Your task to perform on an android device: Open internet settings Image 0: 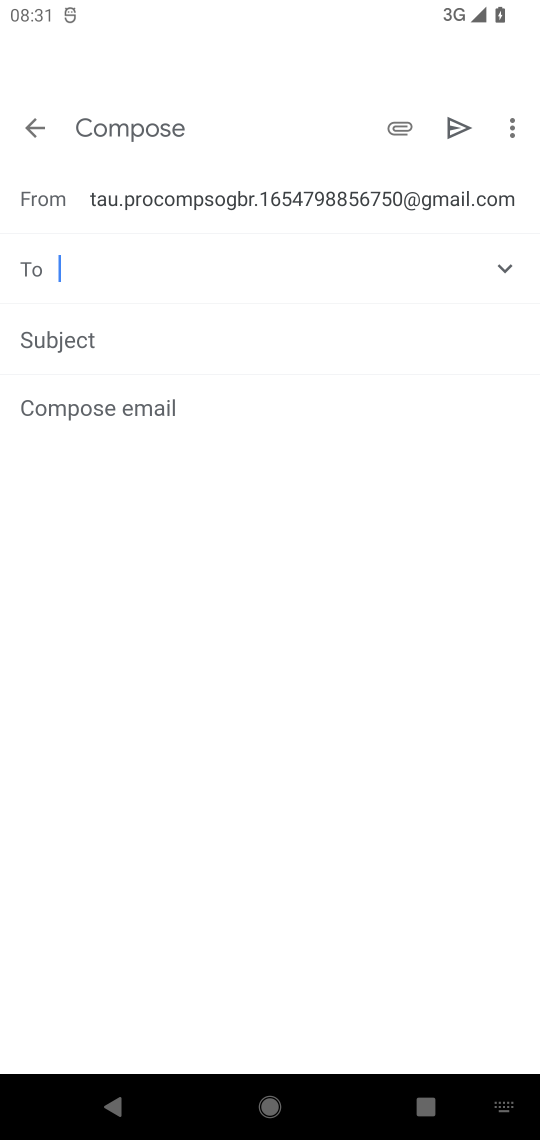
Step 0: press home button
Your task to perform on an android device: Open internet settings Image 1: 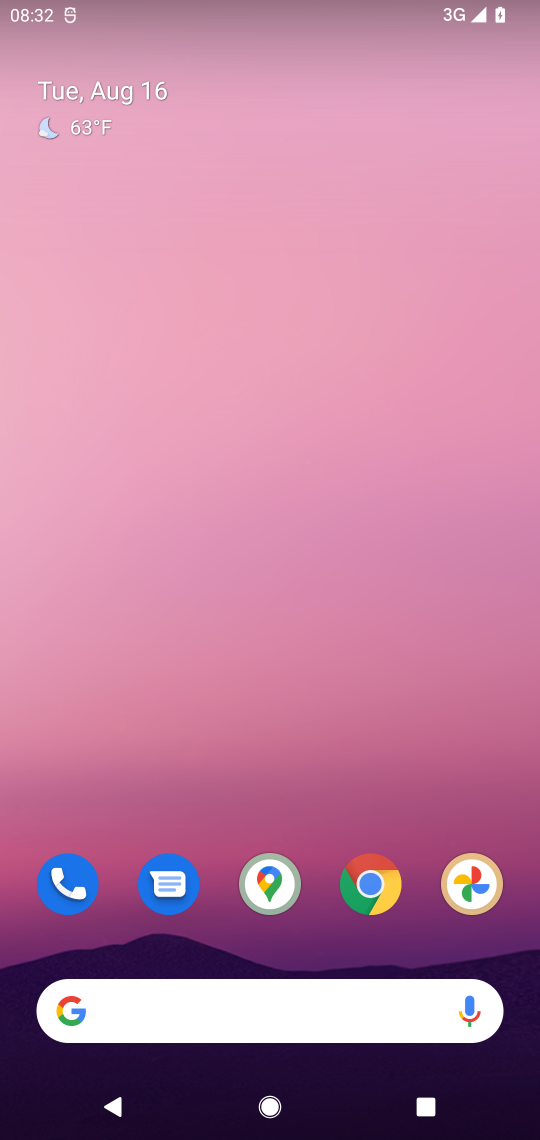
Step 1: click (221, 55)
Your task to perform on an android device: Open internet settings Image 2: 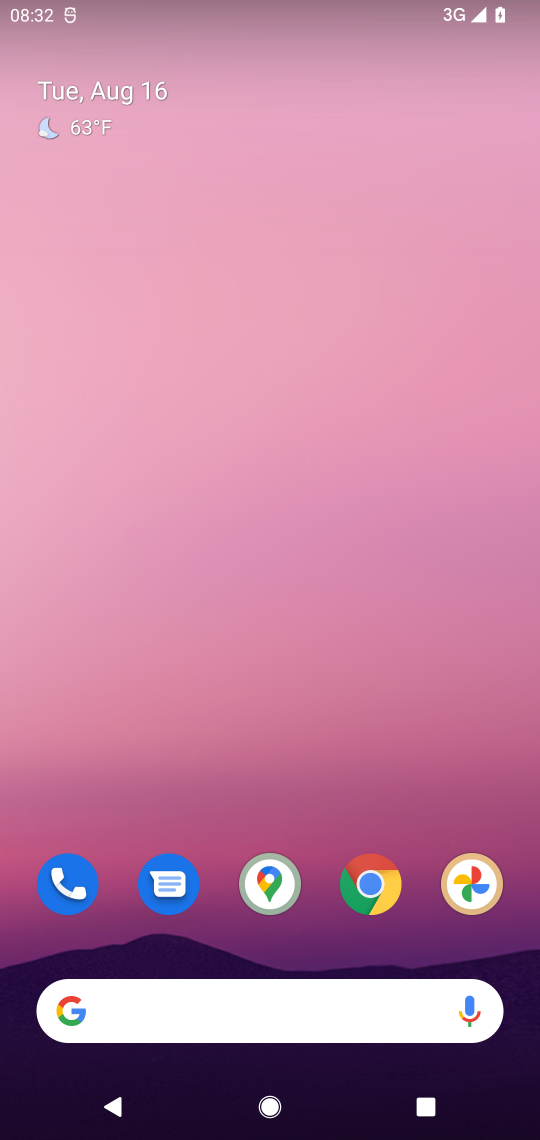
Step 2: drag from (251, 759) to (375, 22)
Your task to perform on an android device: Open internet settings Image 3: 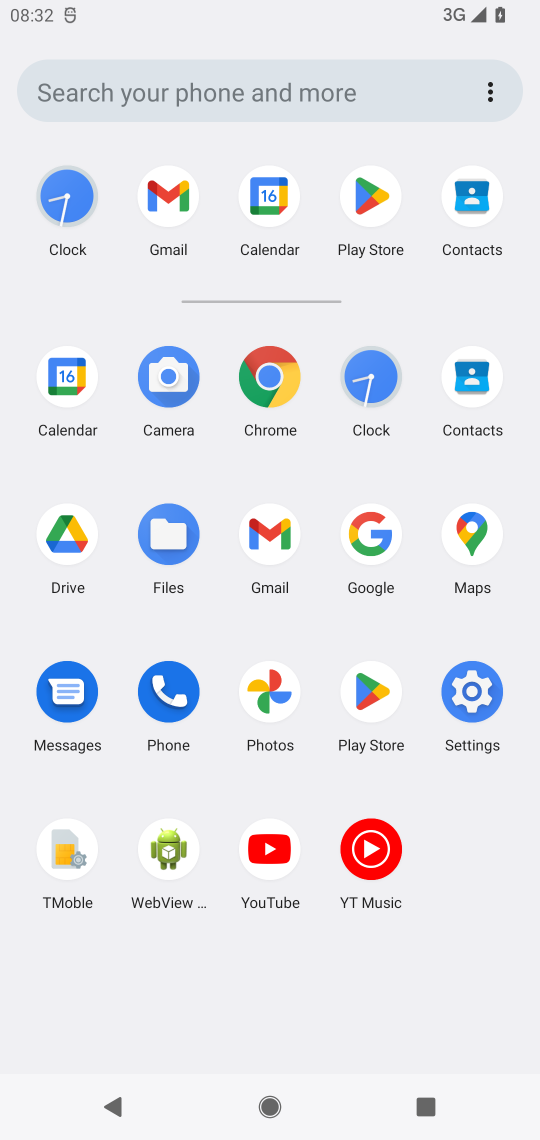
Step 3: click (461, 696)
Your task to perform on an android device: Open internet settings Image 4: 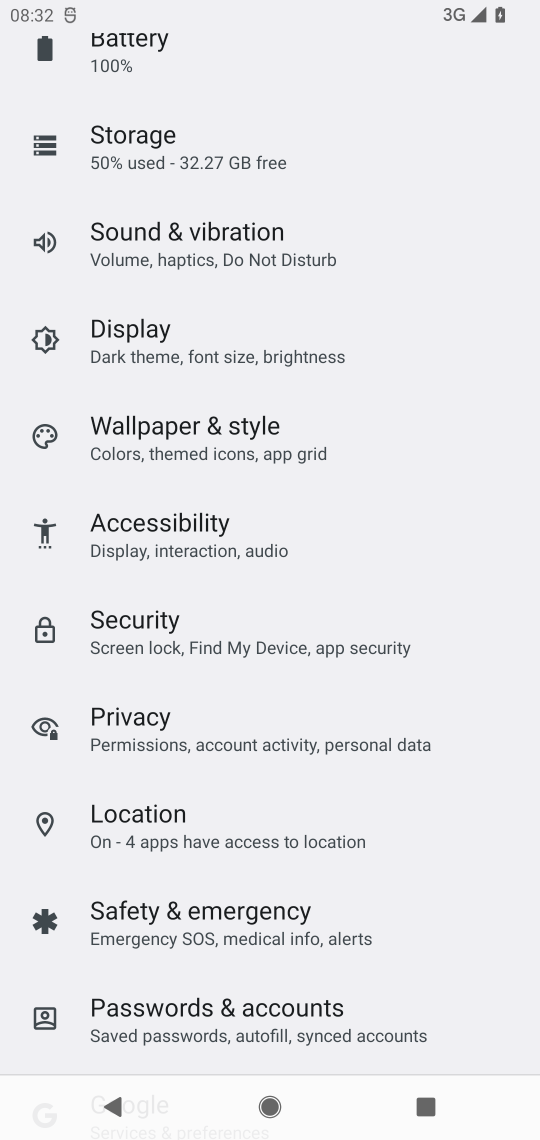
Step 4: drag from (188, 193) to (222, 1025)
Your task to perform on an android device: Open internet settings Image 5: 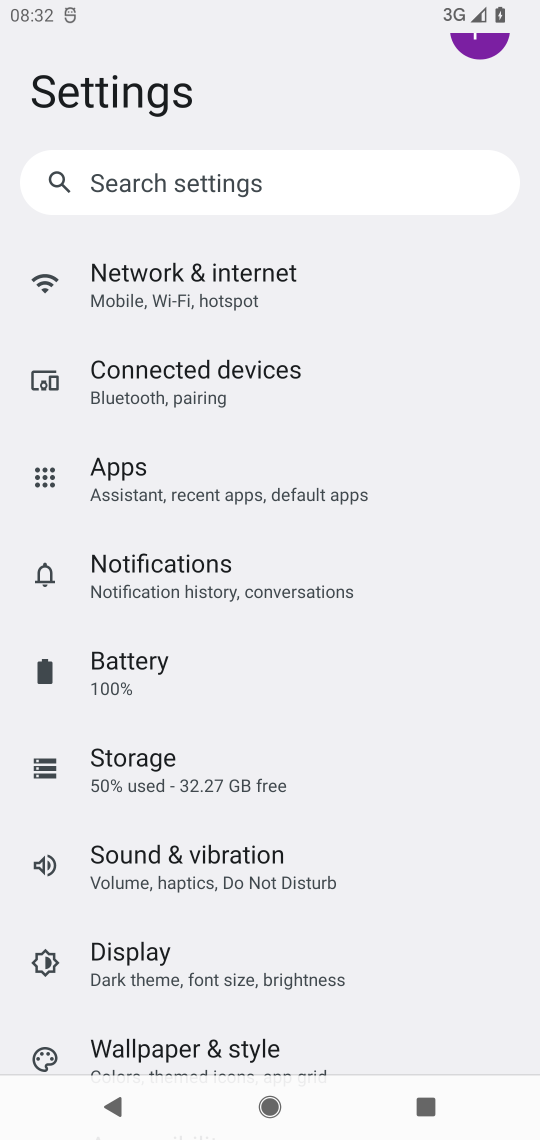
Step 5: click (223, 279)
Your task to perform on an android device: Open internet settings Image 6: 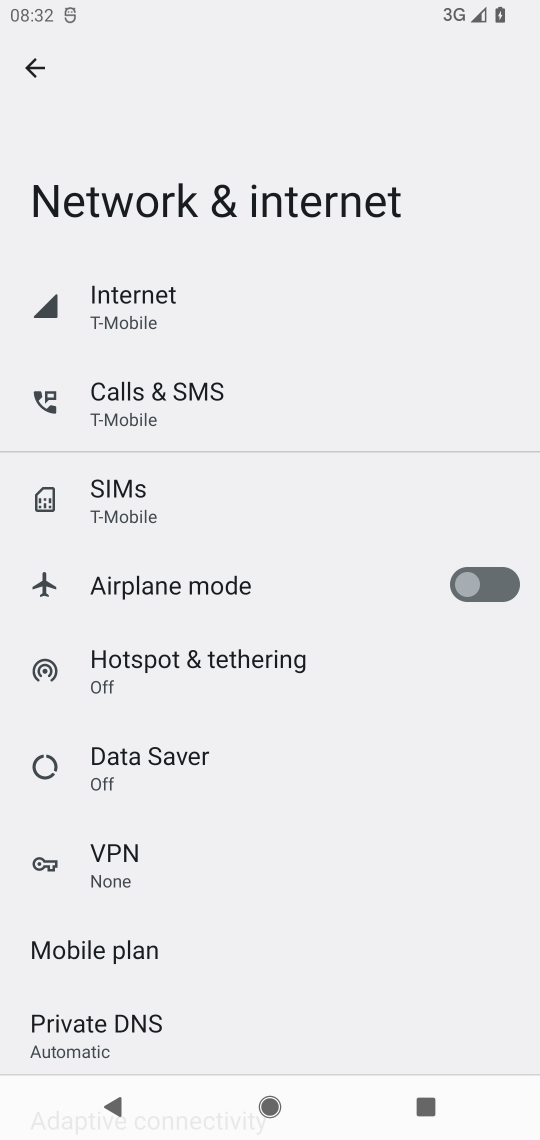
Step 6: task complete